Your task to perform on an android device: Go to display settings Image 0: 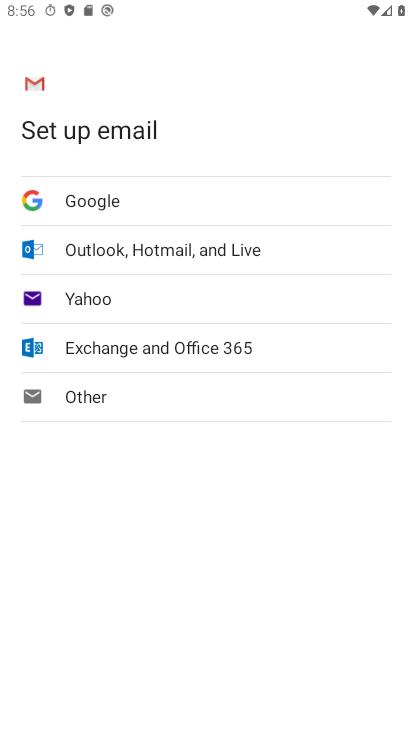
Step 0: press back button
Your task to perform on an android device: Go to display settings Image 1: 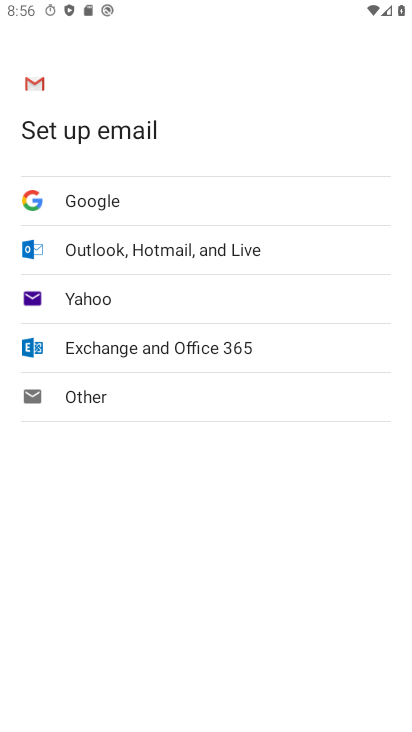
Step 1: press back button
Your task to perform on an android device: Go to display settings Image 2: 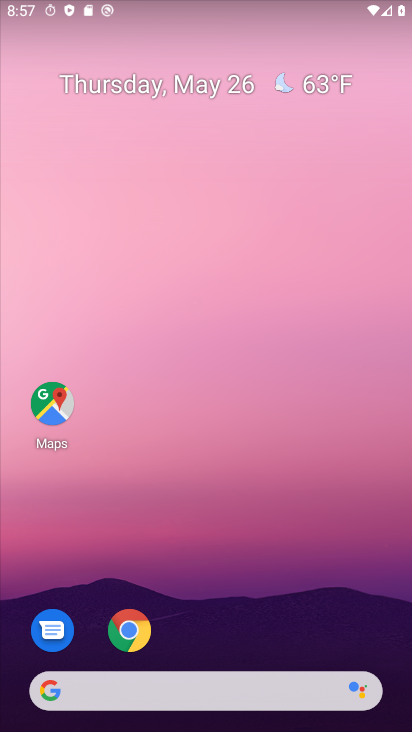
Step 2: drag from (247, 611) to (93, 177)
Your task to perform on an android device: Go to display settings Image 3: 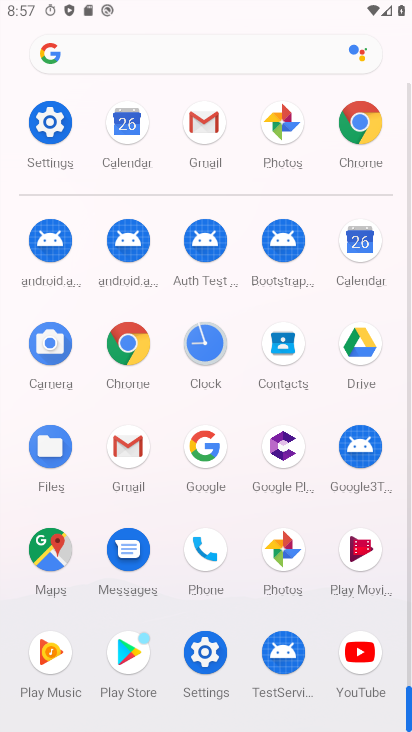
Step 3: click (41, 124)
Your task to perform on an android device: Go to display settings Image 4: 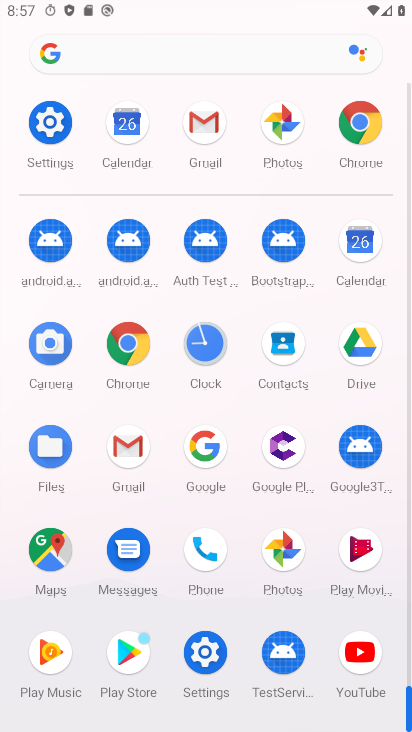
Step 4: click (43, 125)
Your task to perform on an android device: Go to display settings Image 5: 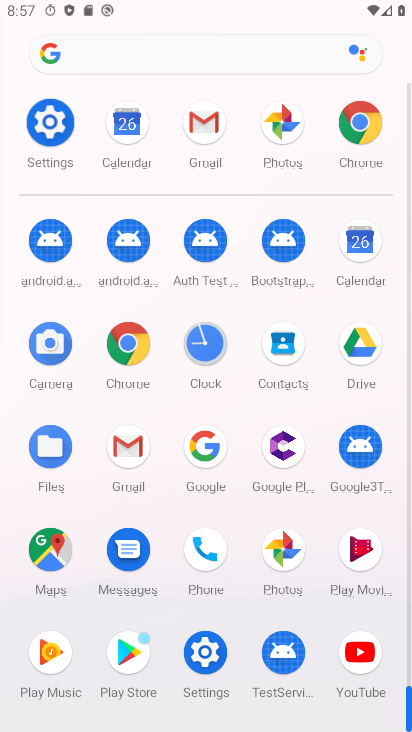
Step 5: click (64, 139)
Your task to perform on an android device: Go to display settings Image 6: 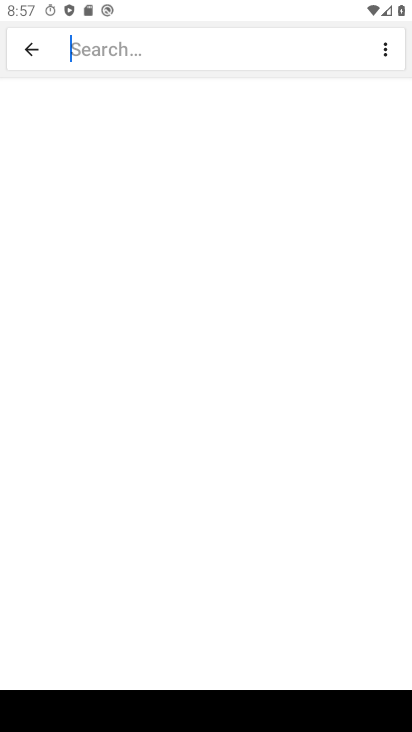
Step 6: click (12, 56)
Your task to perform on an android device: Go to display settings Image 7: 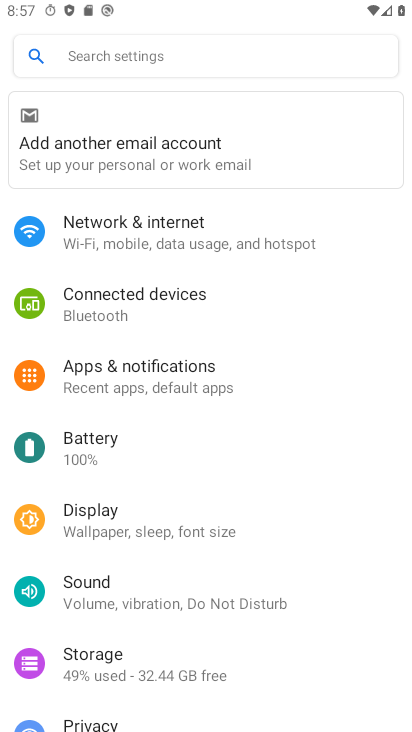
Step 7: click (83, 517)
Your task to perform on an android device: Go to display settings Image 8: 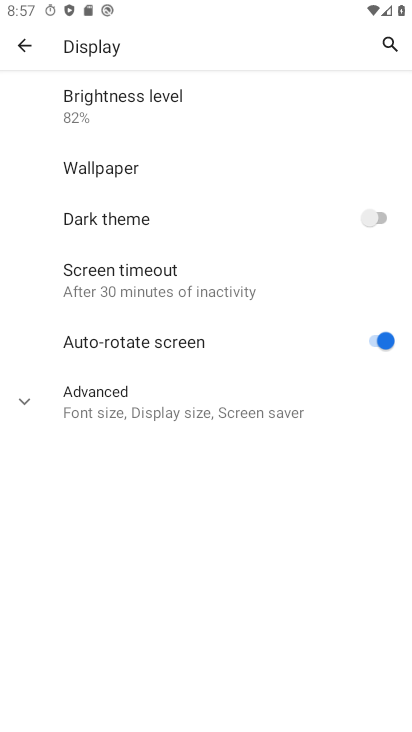
Step 8: task complete